Your task to perform on an android device: change notifications settings Image 0: 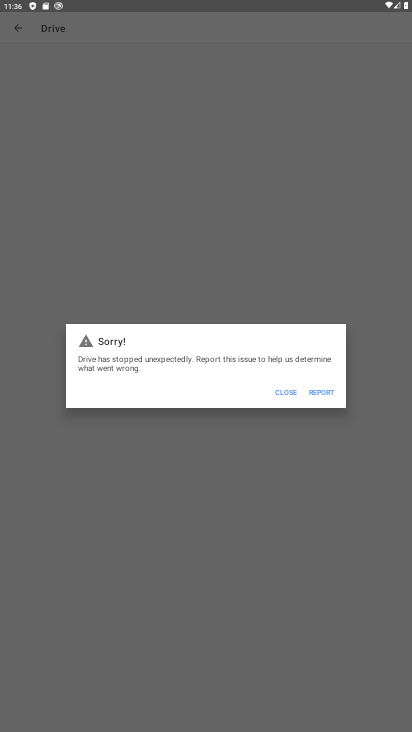
Step 0: press home button
Your task to perform on an android device: change notifications settings Image 1: 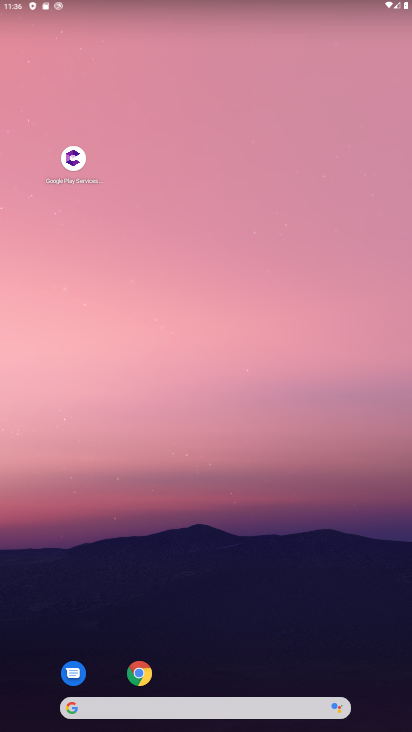
Step 1: drag from (225, 659) to (244, 201)
Your task to perform on an android device: change notifications settings Image 2: 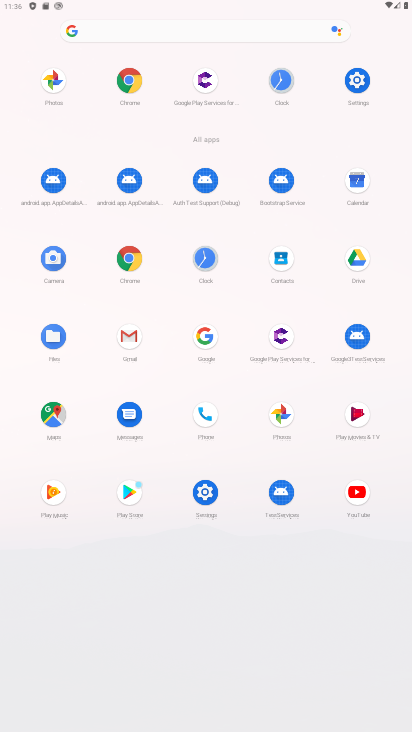
Step 2: click (129, 332)
Your task to perform on an android device: change notifications settings Image 3: 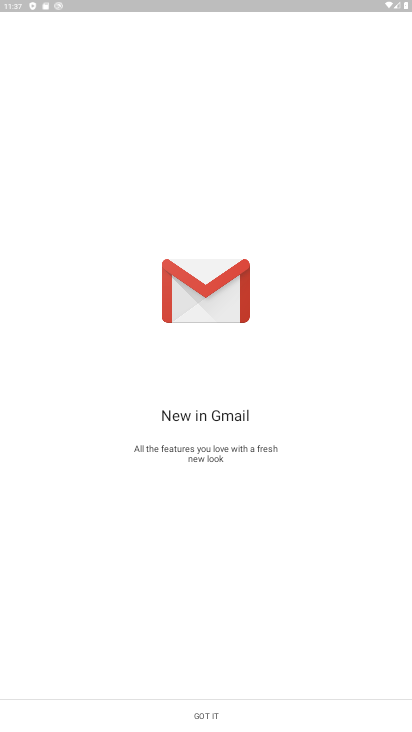
Step 3: click (204, 712)
Your task to perform on an android device: change notifications settings Image 4: 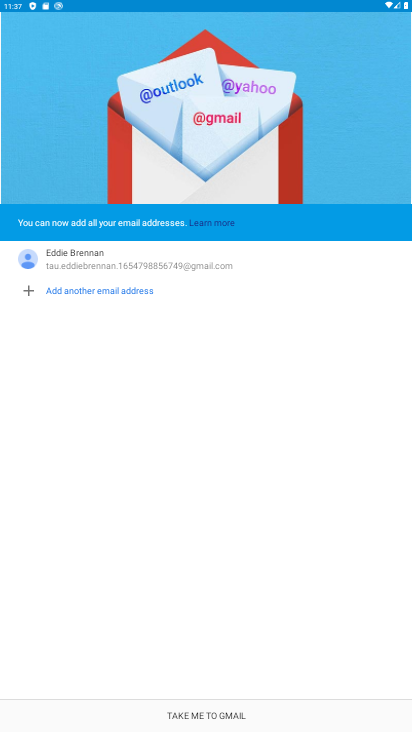
Step 4: click (197, 715)
Your task to perform on an android device: change notifications settings Image 5: 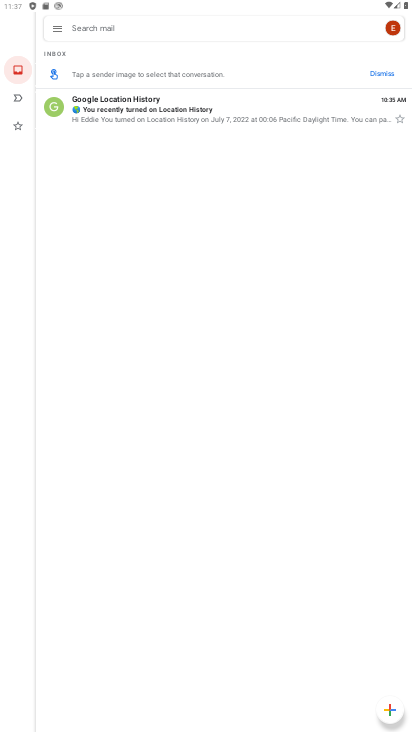
Step 5: click (58, 28)
Your task to perform on an android device: change notifications settings Image 6: 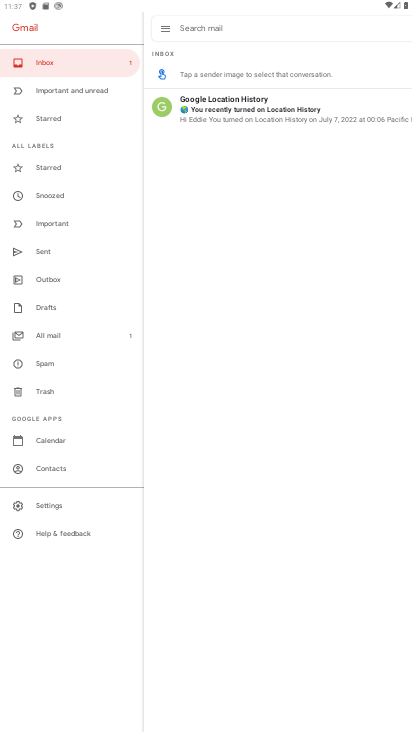
Step 6: click (55, 501)
Your task to perform on an android device: change notifications settings Image 7: 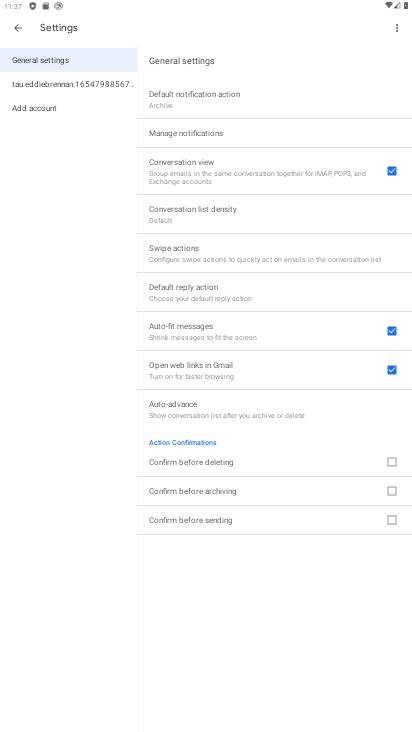
Step 7: click (203, 140)
Your task to perform on an android device: change notifications settings Image 8: 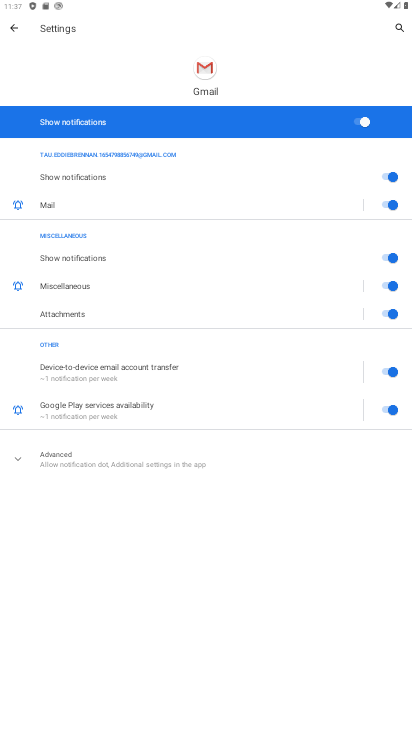
Step 8: click (357, 128)
Your task to perform on an android device: change notifications settings Image 9: 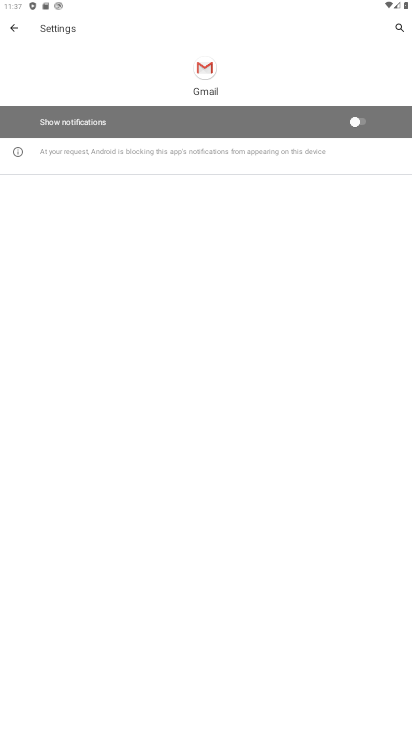
Step 9: task complete